Your task to perform on an android device: Empty the shopping cart on bestbuy. Search for lenovo thinkpad on bestbuy, select the first entry, add it to the cart, then select checkout. Image 0: 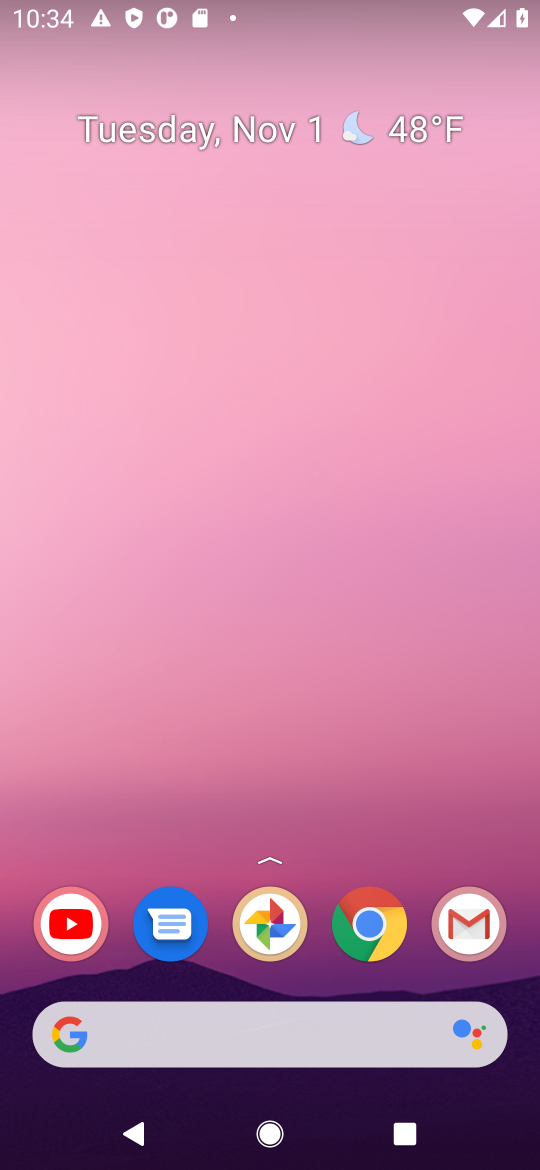
Step 0: click (382, 922)
Your task to perform on an android device: Empty the shopping cart on bestbuy. Search for lenovo thinkpad on bestbuy, select the first entry, add it to the cart, then select checkout. Image 1: 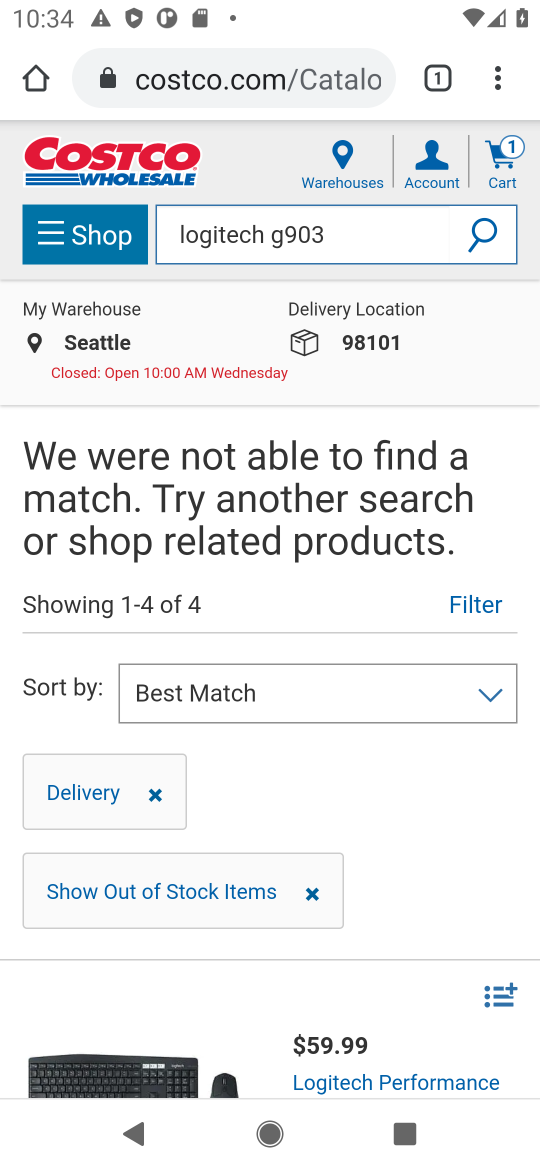
Step 1: click (286, 90)
Your task to perform on an android device: Empty the shopping cart on bestbuy. Search for lenovo thinkpad on bestbuy, select the first entry, add it to the cart, then select checkout. Image 2: 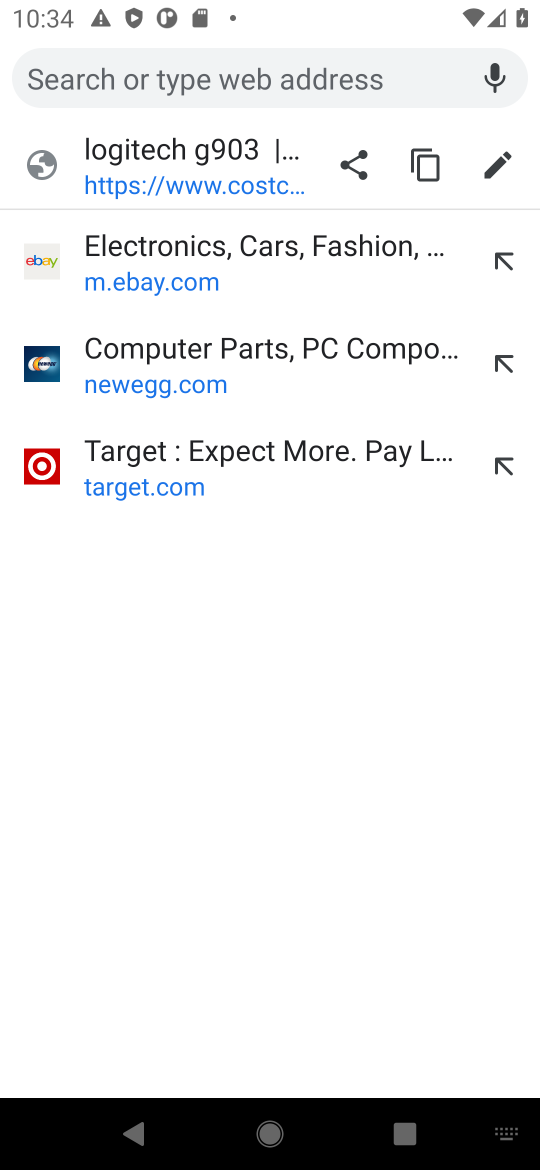
Step 2: type "bestbuy"
Your task to perform on an android device: Empty the shopping cart on bestbuy. Search for lenovo thinkpad on bestbuy, select the first entry, add it to the cart, then select checkout. Image 3: 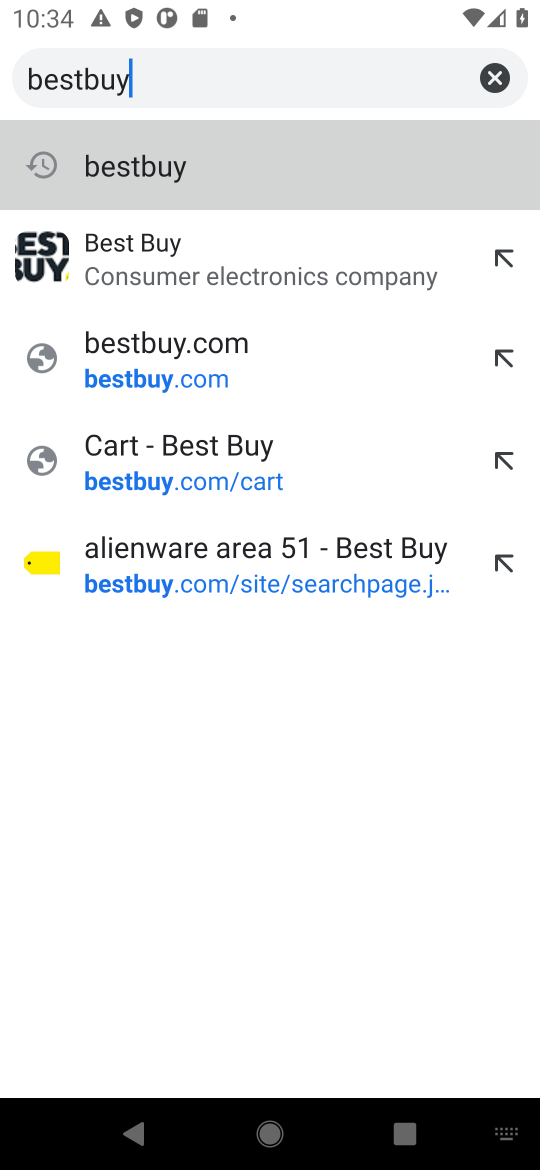
Step 3: click (203, 263)
Your task to perform on an android device: Empty the shopping cart on bestbuy. Search for lenovo thinkpad on bestbuy, select the first entry, add it to the cart, then select checkout. Image 4: 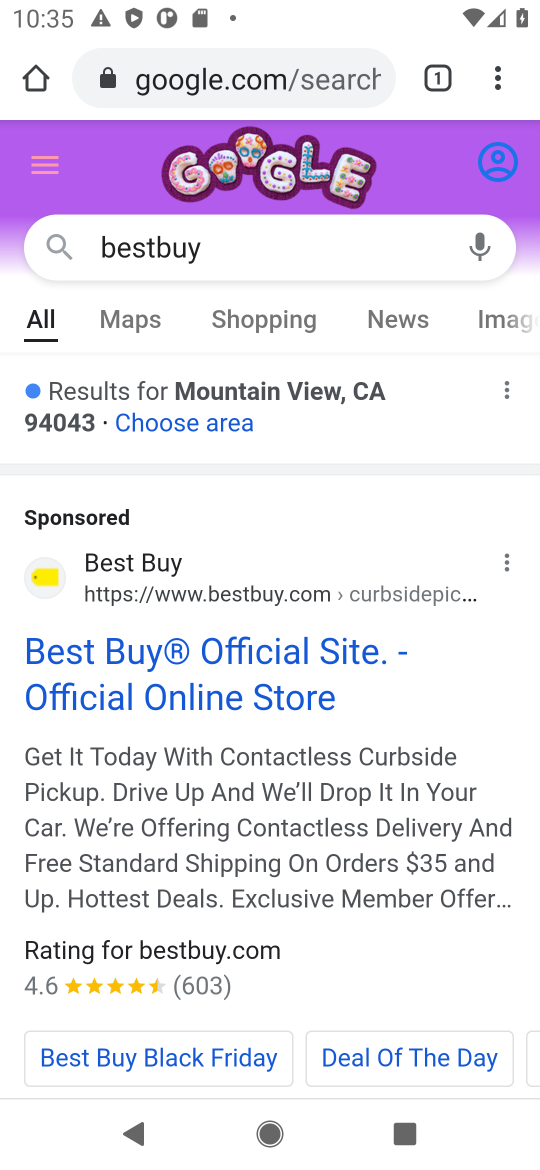
Step 4: click (238, 647)
Your task to perform on an android device: Empty the shopping cart on bestbuy. Search for lenovo thinkpad on bestbuy, select the first entry, add it to the cart, then select checkout. Image 5: 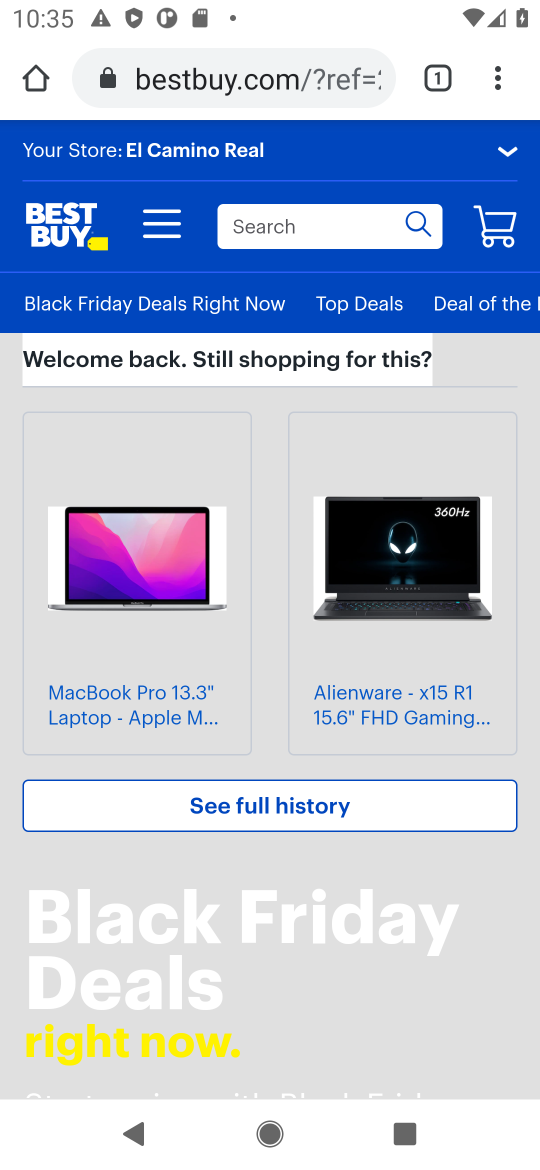
Step 5: click (307, 222)
Your task to perform on an android device: Empty the shopping cart on bestbuy. Search for lenovo thinkpad on bestbuy, select the first entry, add it to the cart, then select checkout. Image 6: 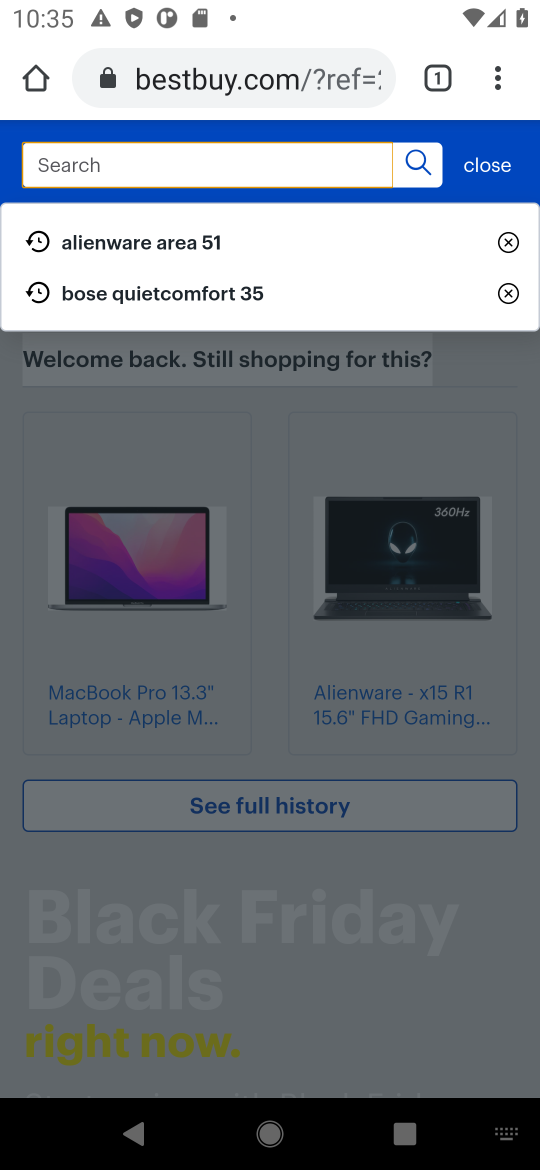
Step 6: click (488, 168)
Your task to perform on an android device: Empty the shopping cart on bestbuy. Search for lenovo thinkpad on bestbuy, select the first entry, add it to the cart, then select checkout. Image 7: 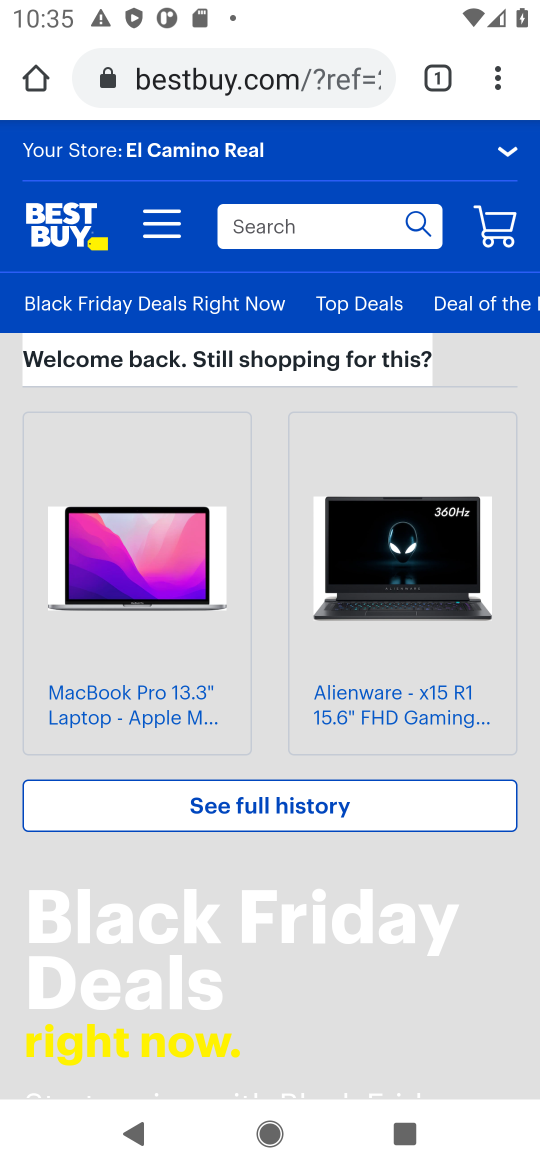
Step 7: click (504, 222)
Your task to perform on an android device: Empty the shopping cart on bestbuy. Search for lenovo thinkpad on bestbuy, select the first entry, add it to the cart, then select checkout. Image 8: 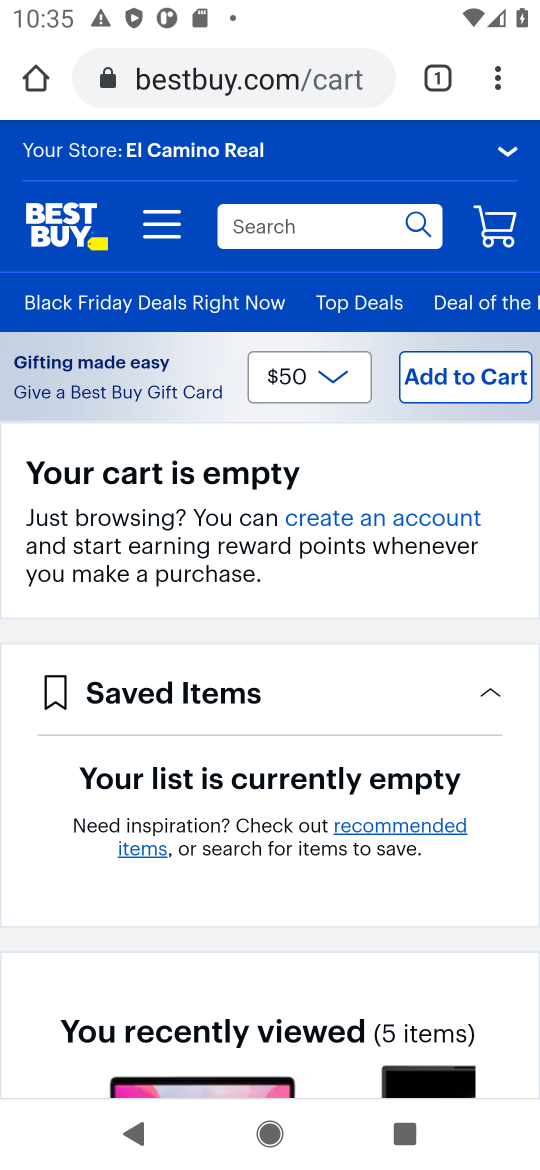
Step 8: click (358, 222)
Your task to perform on an android device: Empty the shopping cart on bestbuy. Search for lenovo thinkpad on bestbuy, select the first entry, add it to the cart, then select checkout. Image 9: 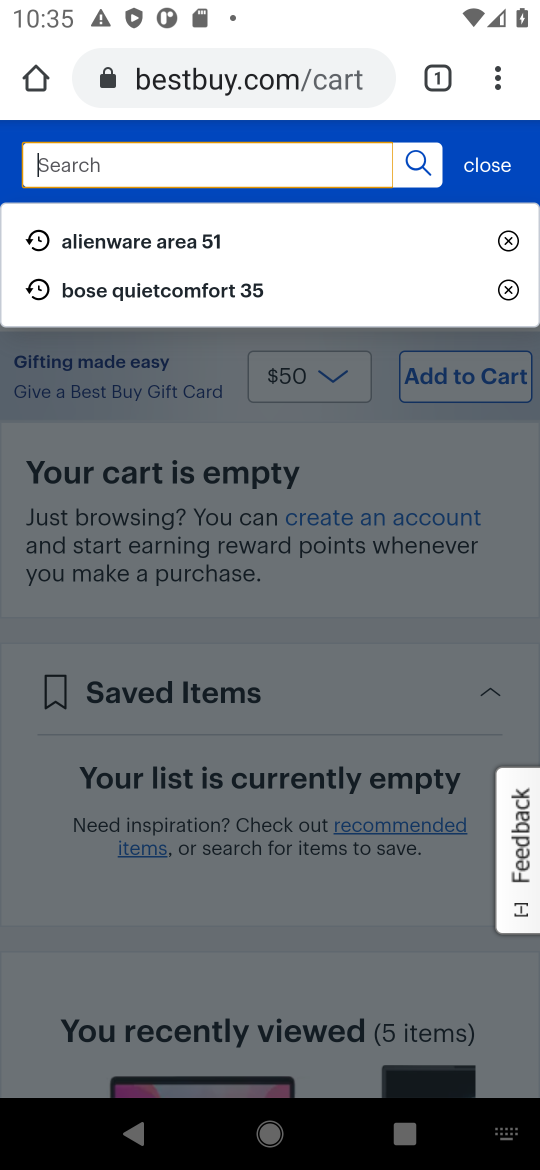
Step 9: type "lenovo thinkpad"
Your task to perform on an android device: Empty the shopping cart on bestbuy. Search for lenovo thinkpad on bestbuy, select the first entry, add it to the cart, then select checkout. Image 10: 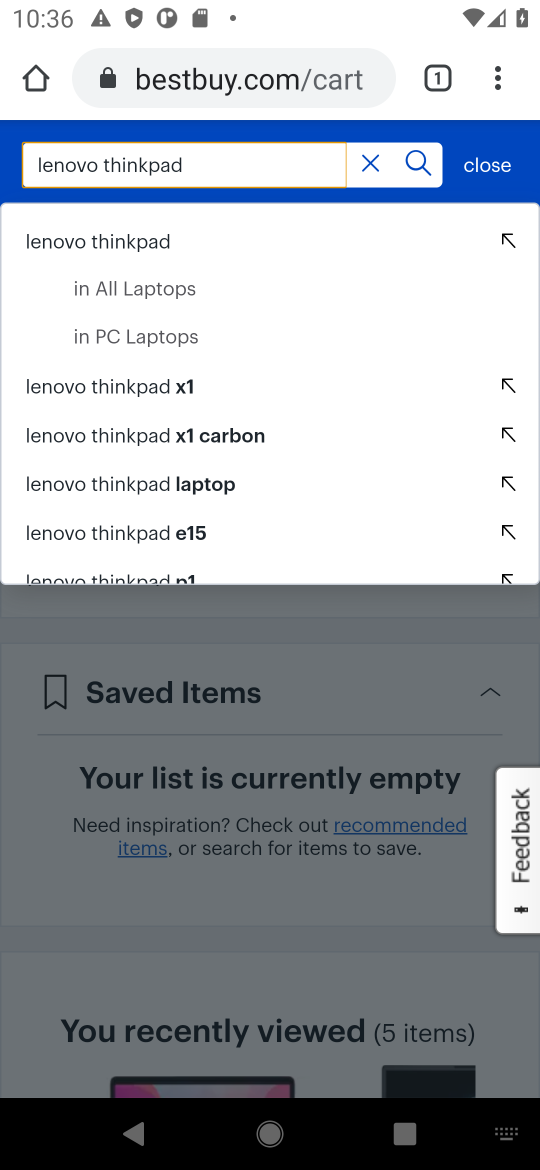
Step 10: click (418, 157)
Your task to perform on an android device: Empty the shopping cart on bestbuy. Search for lenovo thinkpad on bestbuy, select the first entry, add it to the cart, then select checkout. Image 11: 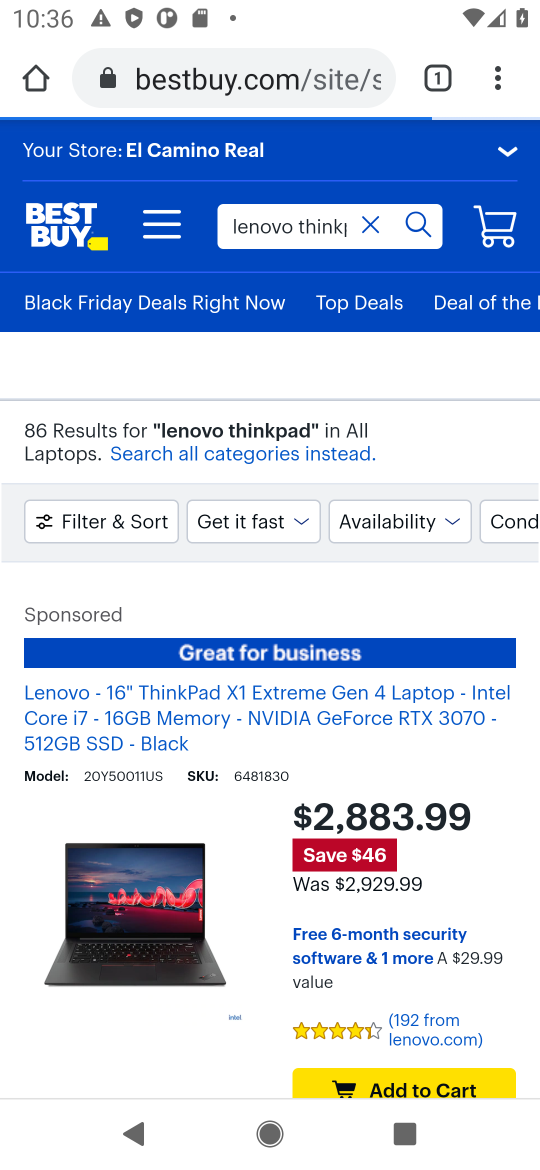
Step 11: click (168, 922)
Your task to perform on an android device: Empty the shopping cart on bestbuy. Search for lenovo thinkpad on bestbuy, select the first entry, add it to the cart, then select checkout. Image 12: 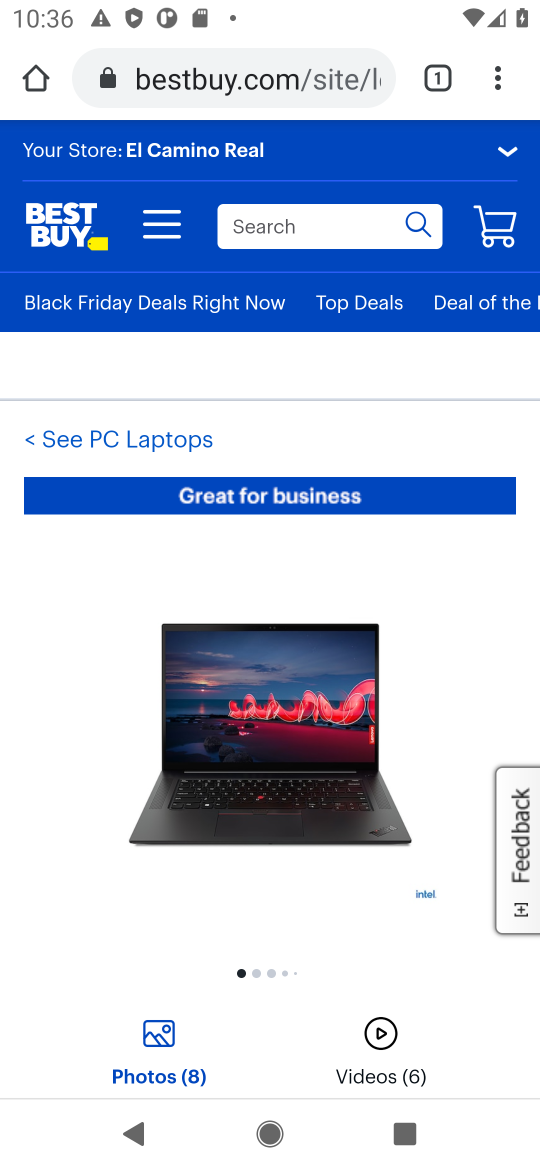
Step 12: drag from (39, 967) to (127, 561)
Your task to perform on an android device: Empty the shopping cart on bestbuy. Search for lenovo thinkpad on bestbuy, select the first entry, add it to the cart, then select checkout. Image 13: 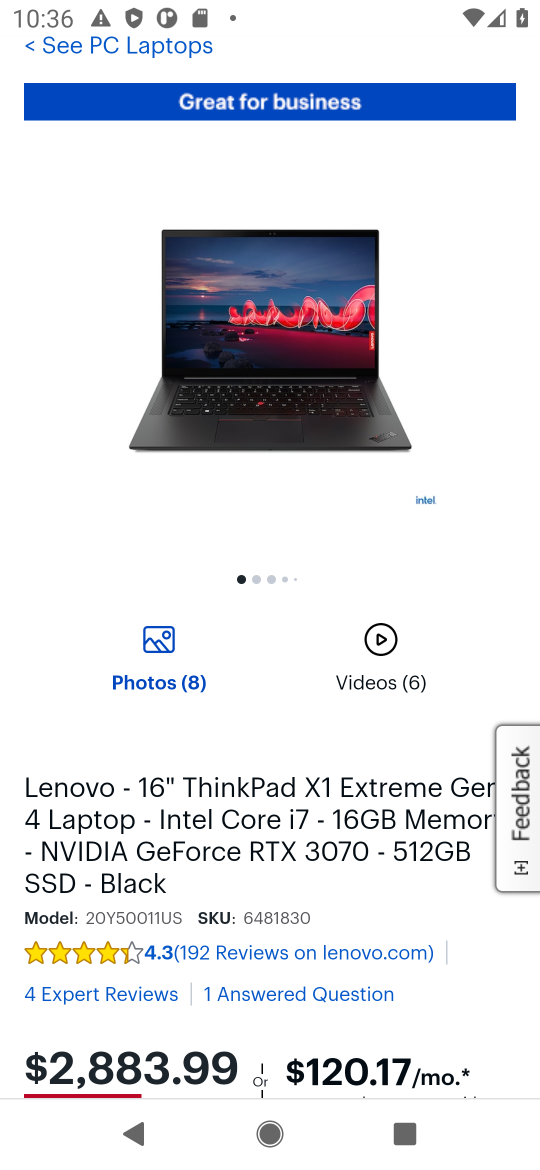
Step 13: drag from (477, 1027) to (395, 347)
Your task to perform on an android device: Empty the shopping cart on bestbuy. Search for lenovo thinkpad on bestbuy, select the first entry, add it to the cart, then select checkout. Image 14: 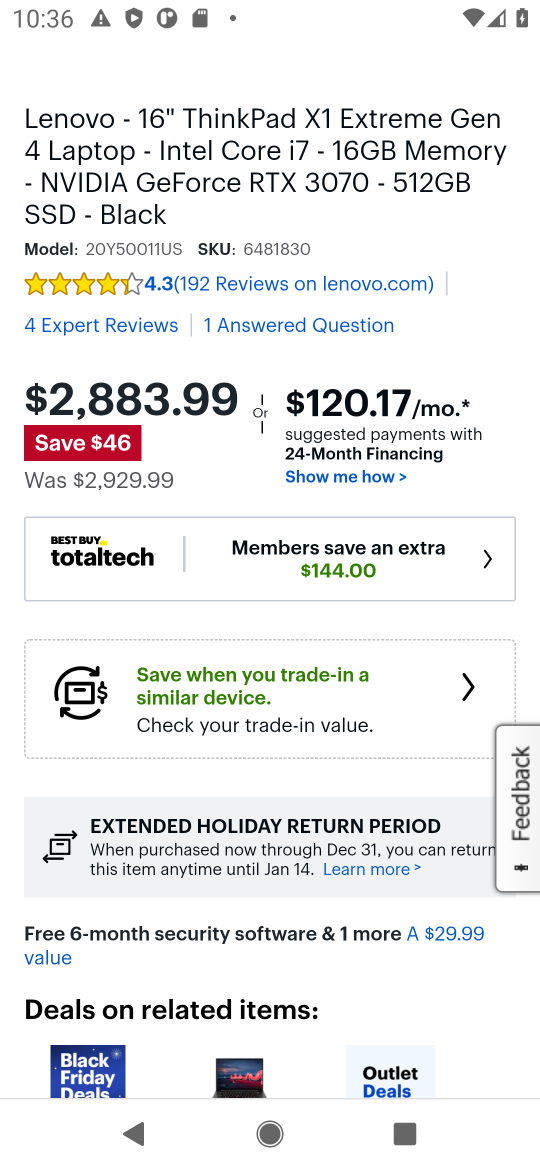
Step 14: drag from (280, 917) to (292, 452)
Your task to perform on an android device: Empty the shopping cart on bestbuy. Search for lenovo thinkpad on bestbuy, select the first entry, add it to the cart, then select checkout. Image 15: 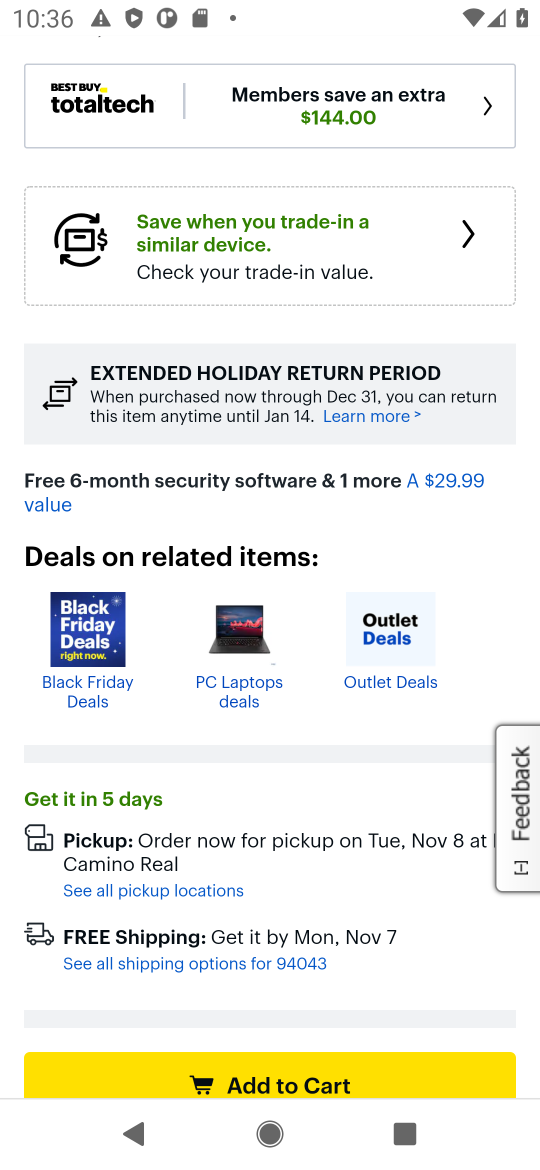
Step 15: click (279, 1077)
Your task to perform on an android device: Empty the shopping cart on bestbuy. Search for lenovo thinkpad on bestbuy, select the first entry, add it to the cart, then select checkout. Image 16: 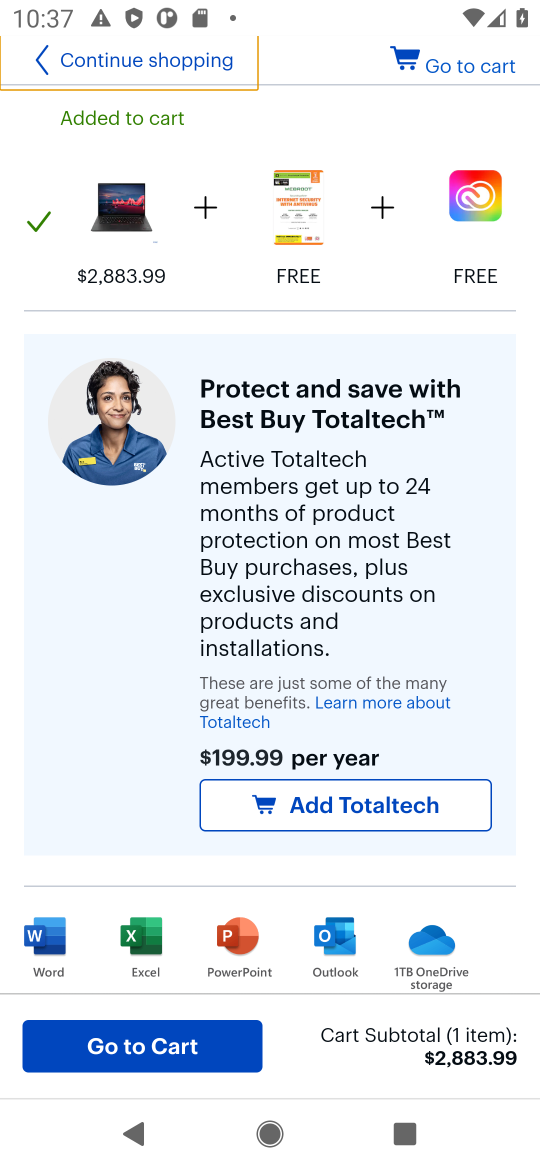
Step 16: click (185, 1051)
Your task to perform on an android device: Empty the shopping cart on bestbuy. Search for lenovo thinkpad on bestbuy, select the first entry, add it to the cart, then select checkout. Image 17: 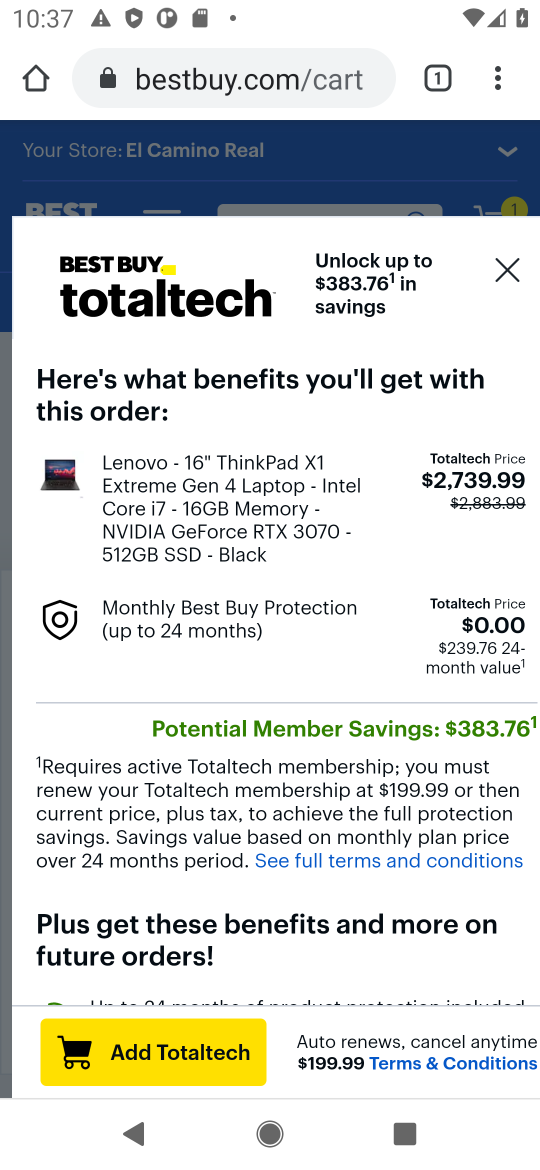
Step 17: click (513, 276)
Your task to perform on an android device: Empty the shopping cart on bestbuy. Search for lenovo thinkpad on bestbuy, select the first entry, add it to the cart, then select checkout. Image 18: 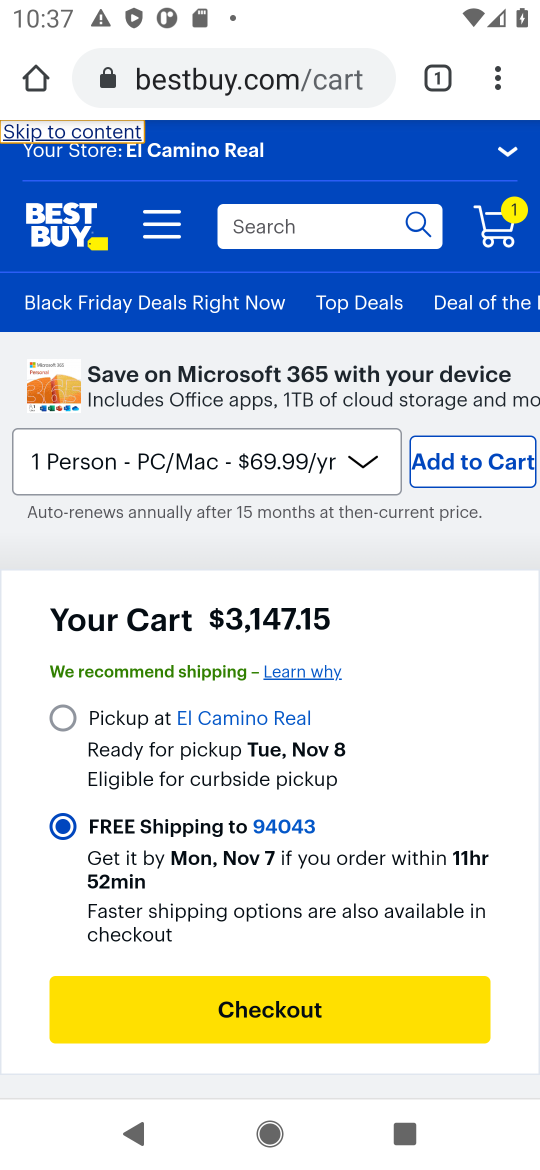
Step 18: click (245, 1029)
Your task to perform on an android device: Empty the shopping cart on bestbuy. Search for lenovo thinkpad on bestbuy, select the first entry, add it to the cart, then select checkout. Image 19: 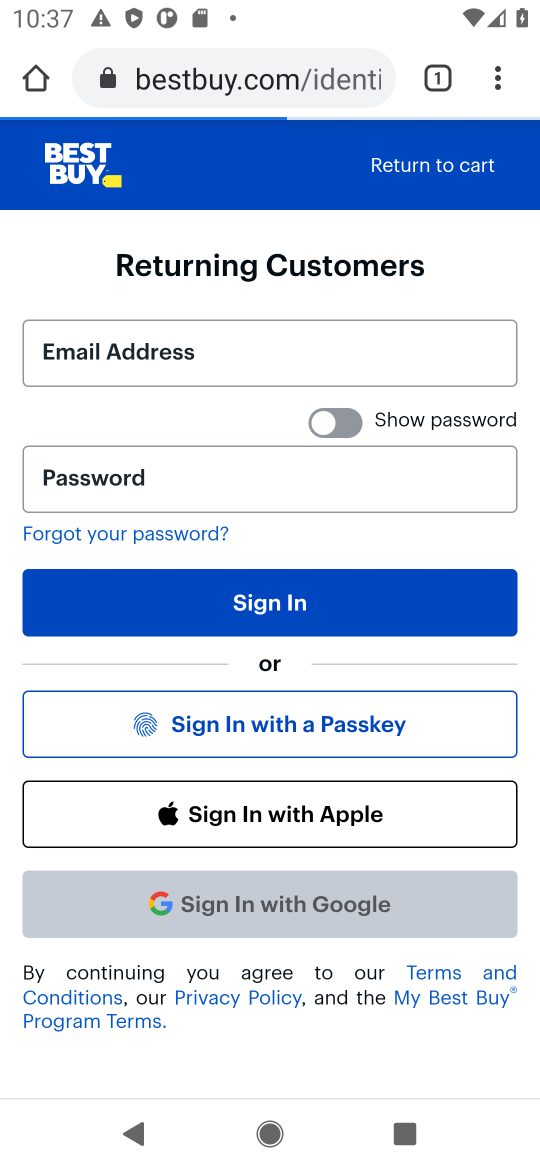
Step 19: task complete